Your task to perform on an android device: allow notifications from all sites in the chrome app Image 0: 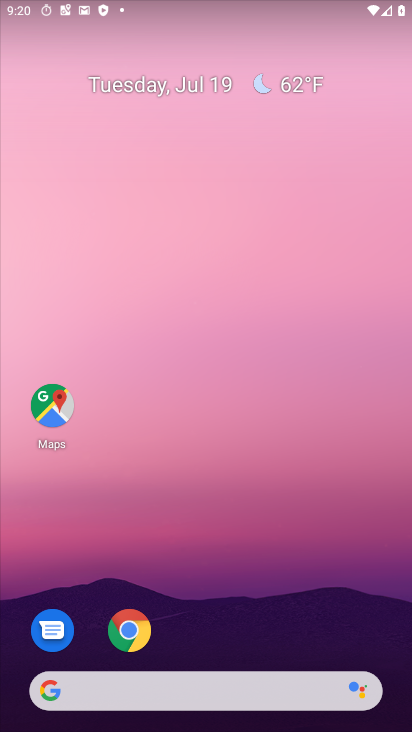
Step 0: click (130, 647)
Your task to perform on an android device: allow notifications from all sites in the chrome app Image 1: 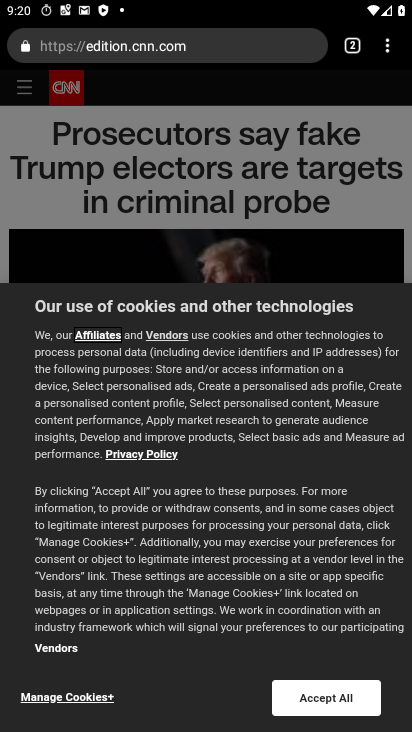
Step 1: click (388, 48)
Your task to perform on an android device: allow notifications from all sites in the chrome app Image 2: 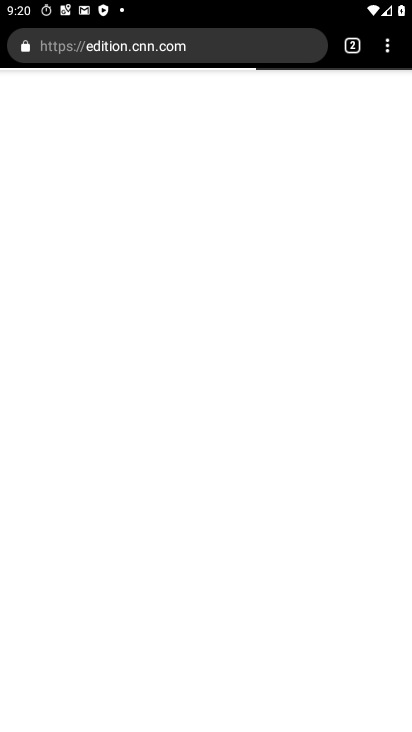
Step 2: click (393, 47)
Your task to perform on an android device: allow notifications from all sites in the chrome app Image 3: 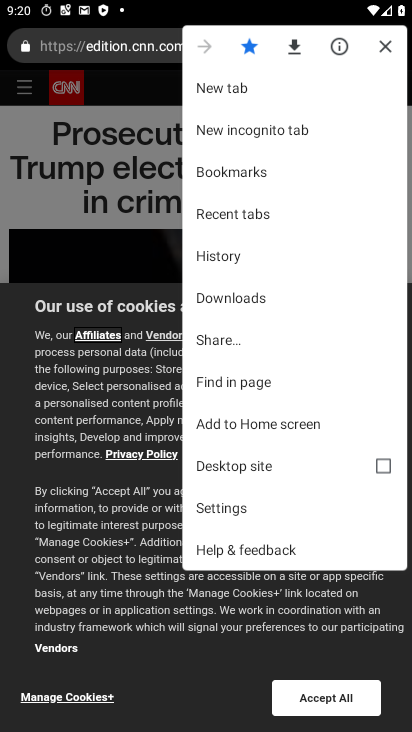
Step 3: click (224, 508)
Your task to perform on an android device: allow notifications from all sites in the chrome app Image 4: 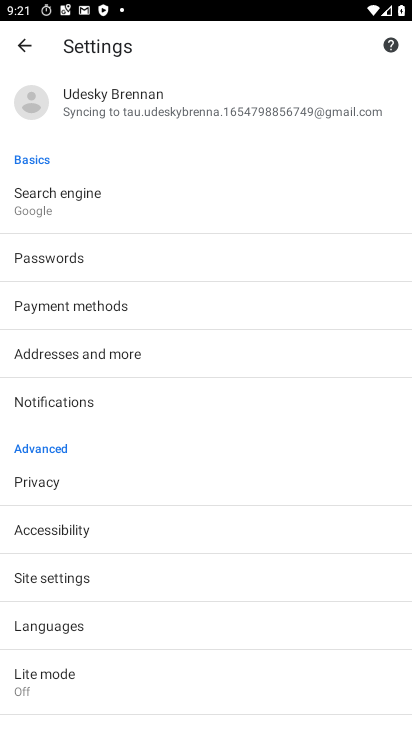
Step 4: drag from (172, 645) to (173, 370)
Your task to perform on an android device: allow notifications from all sites in the chrome app Image 5: 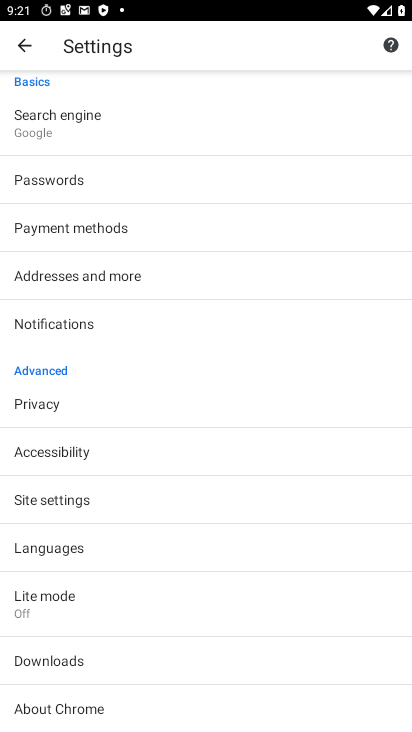
Step 5: click (54, 505)
Your task to perform on an android device: allow notifications from all sites in the chrome app Image 6: 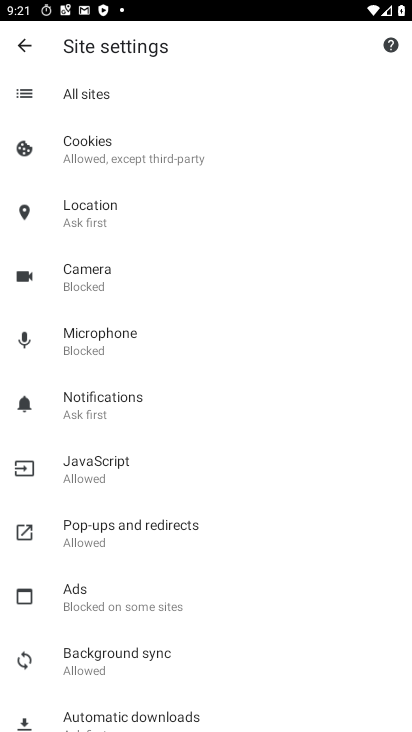
Step 6: click (116, 407)
Your task to perform on an android device: allow notifications from all sites in the chrome app Image 7: 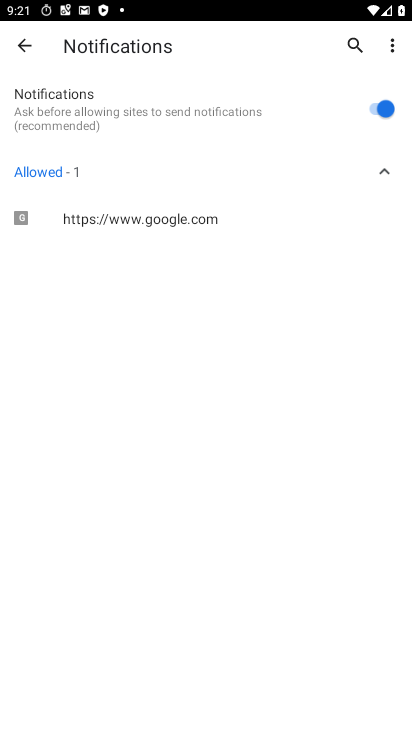
Step 7: task complete